Your task to perform on an android device: Go to Maps Image 0: 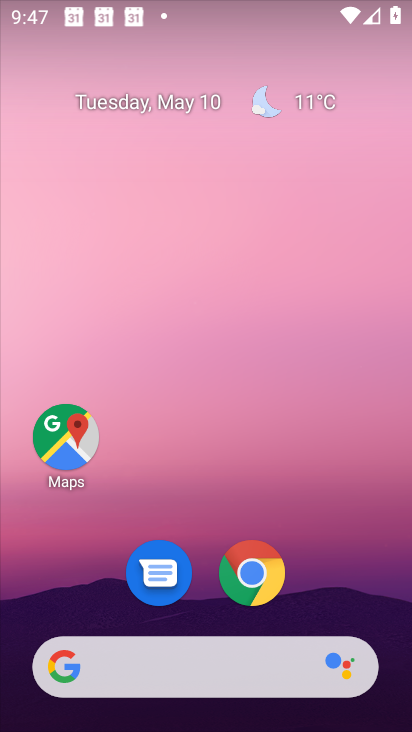
Step 0: click (70, 460)
Your task to perform on an android device: Go to Maps Image 1: 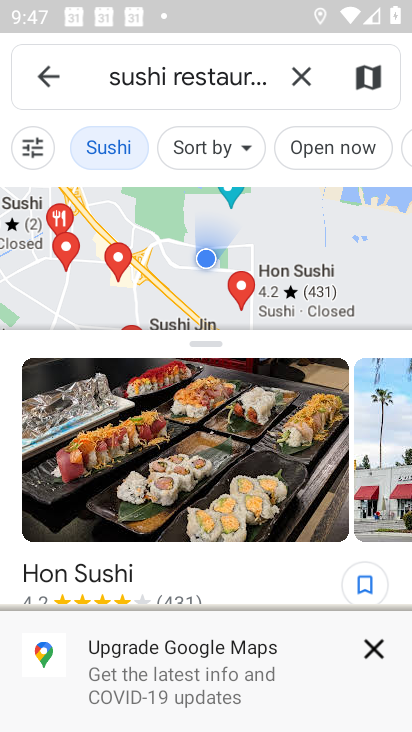
Step 1: task complete